Your task to perform on an android device: check battery use Image 0: 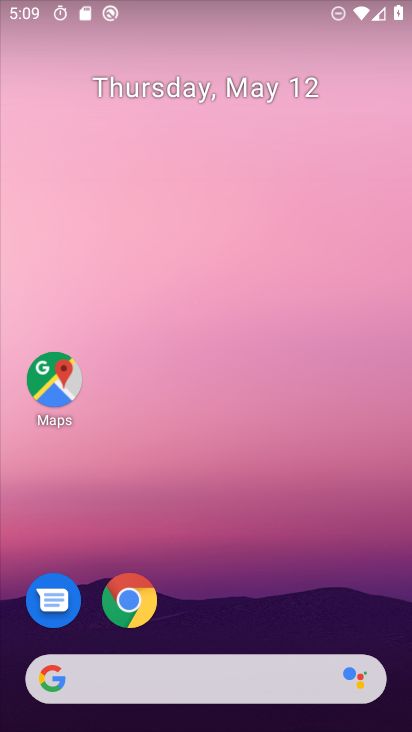
Step 0: drag from (190, 605) to (217, 164)
Your task to perform on an android device: check battery use Image 1: 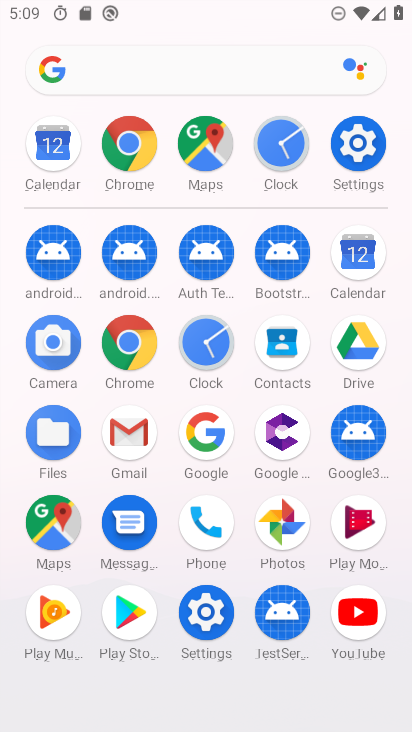
Step 1: click (349, 124)
Your task to perform on an android device: check battery use Image 2: 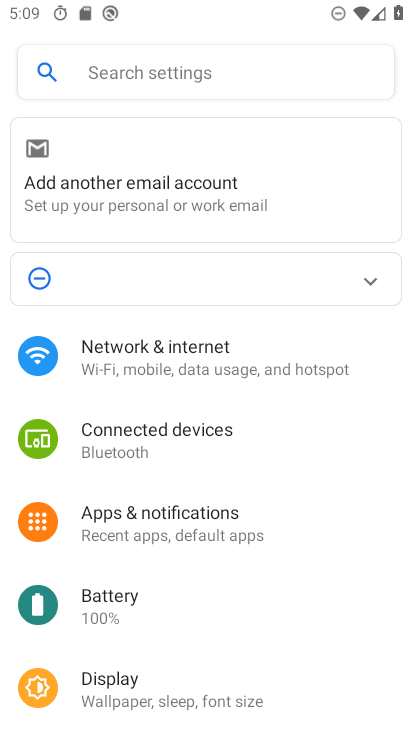
Step 2: drag from (179, 659) to (221, 233)
Your task to perform on an android device: check battery use Image 3: 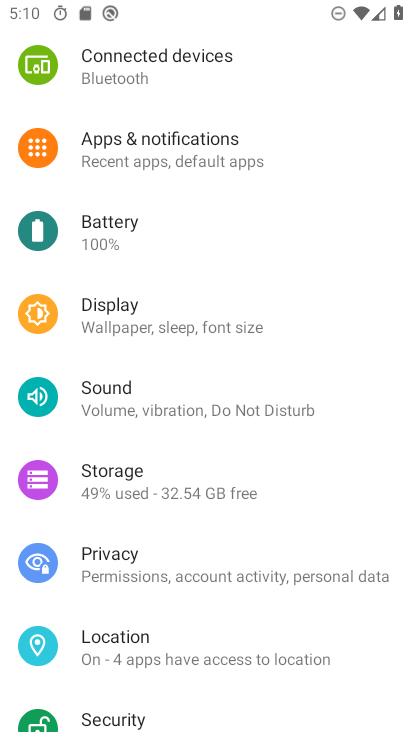
Step 3: click (141, 245)
Your task to perform on an android device: check battery use Image 4: 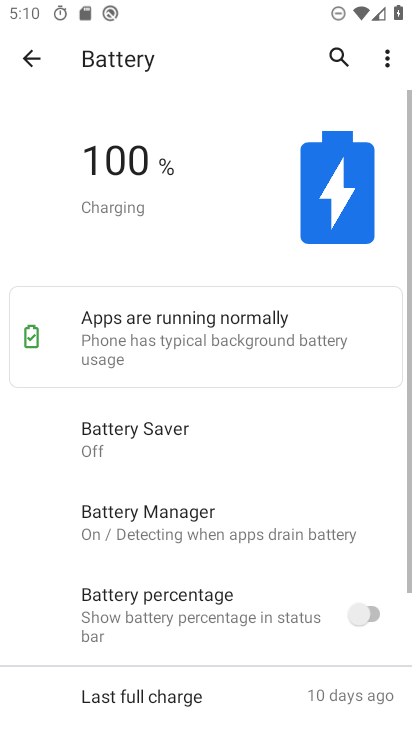
Step 4: drag from (228, 502) to (257, 168)
Your task to perform on an android device: check battery use Image 5: 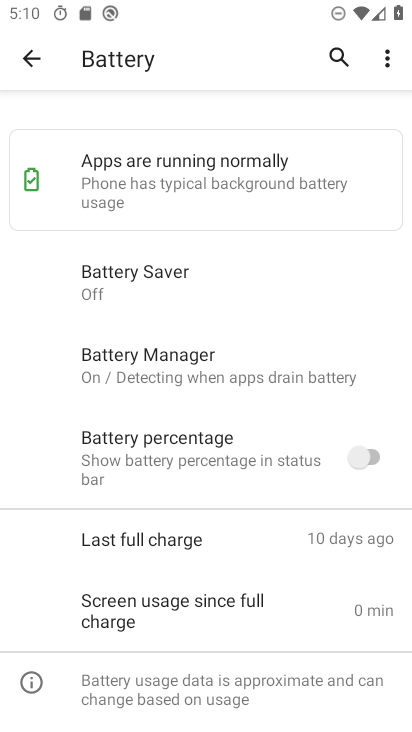
Step 5: drag from (255, 139) to (302, 568)
Your task to perform on an android device: check battery use Image 6: 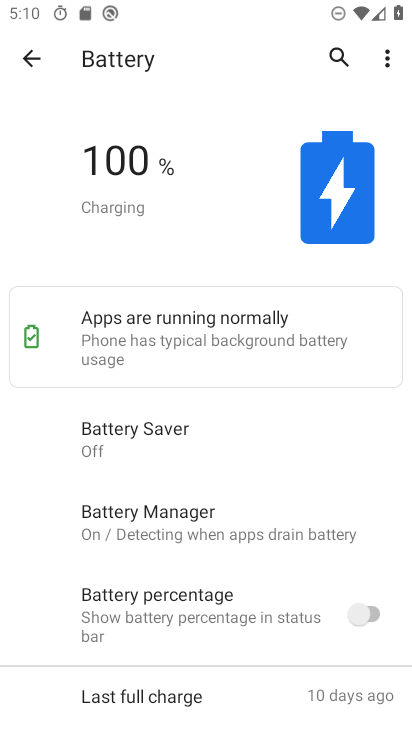
Step 6: click (386, 54)
Your task to perform on an android device: check battery use Image 7: 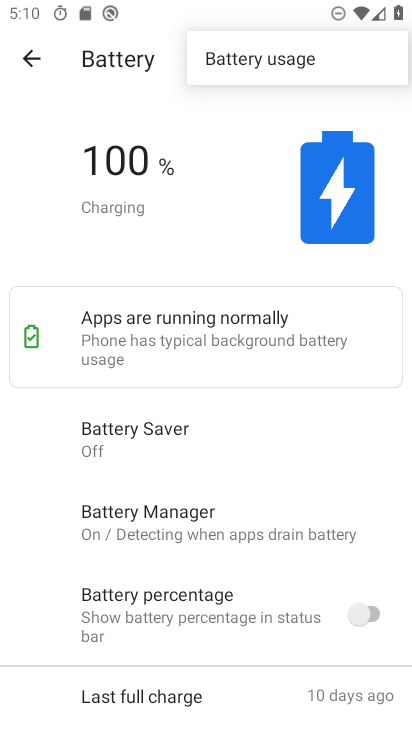
Step 7: click (257, 61)
Your task to perform on an android device: check battery use Image 8: 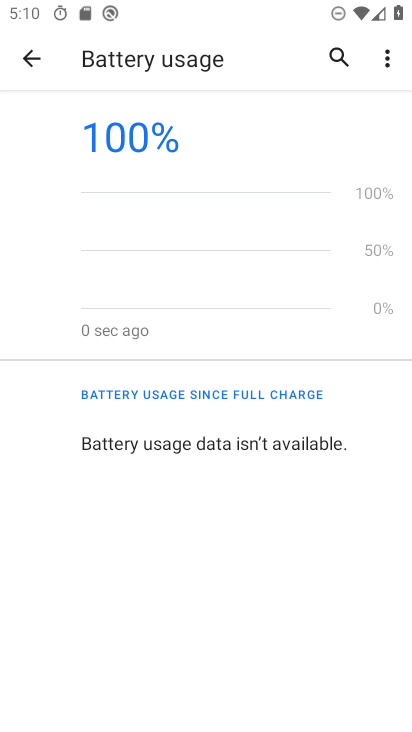
Step 8: task complete